Your task to perform on an android device: Open internet settings Image 0: 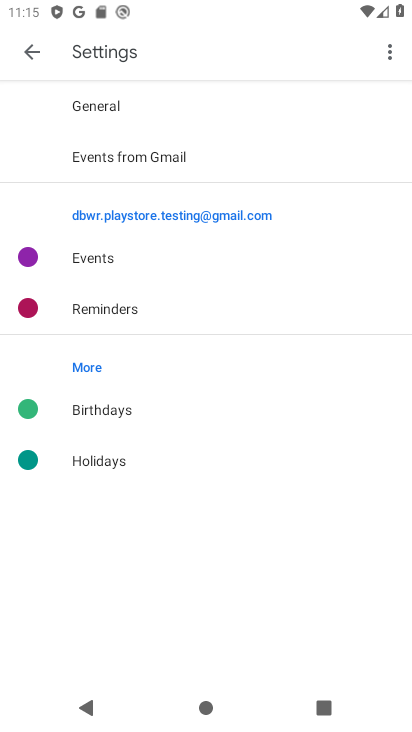
Step 0: drag from (232, 13) to (266, 587)
Your task to perform on an android device: Open internet settings Image 1: 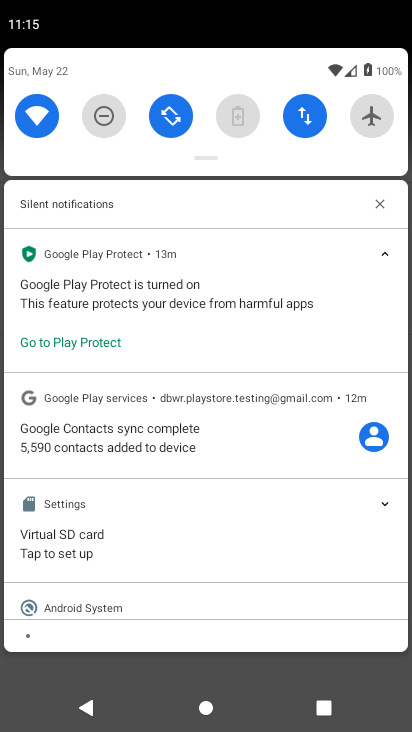
Step 1: click (313, 120)
Your task to perform on an android device: Open internet settings Image 2: 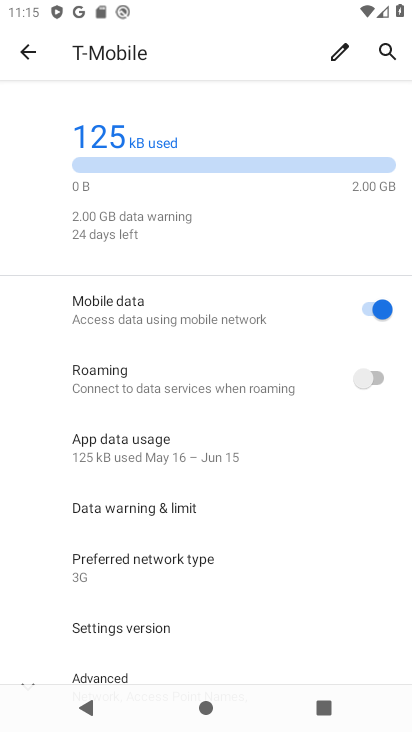
Step 2: task complete